Your task to perform on an android device: Open Chrome and go to settings Image 0: 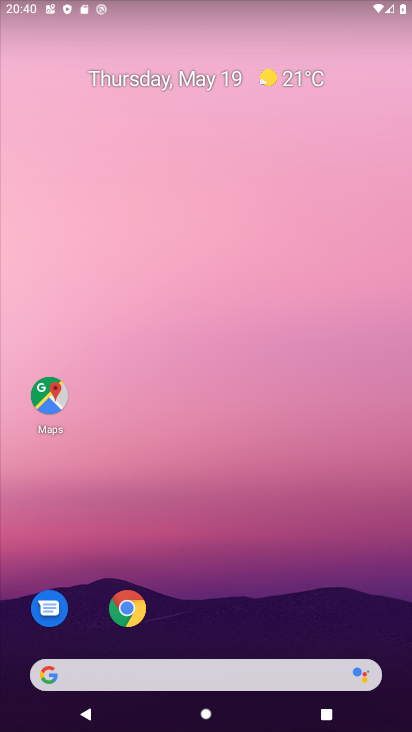
Step 0: click (133, 607)
Your task to perform on an android device: Open Chrome and go to settings Image 1: 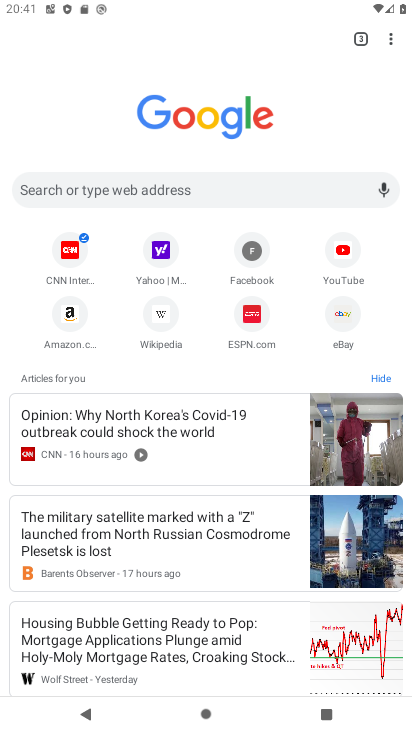
Step 1: click (391, 46)
Your task to perform on an android device: Open Chrome and go to settings Image 2: 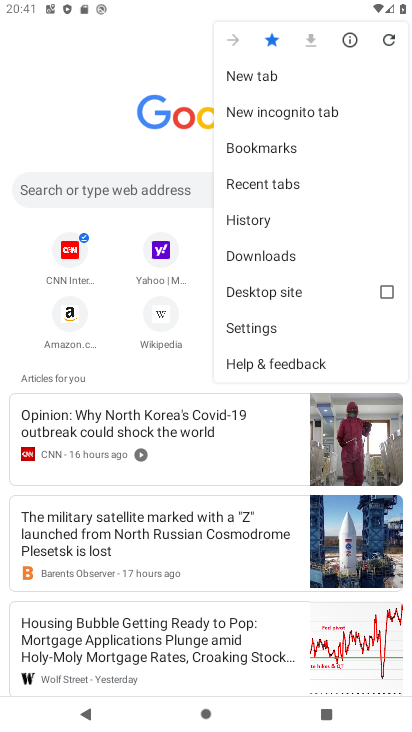
Step 2: click (259, 322)
Your task to perform on an android device: Open Chrome and go to settings Image 3: 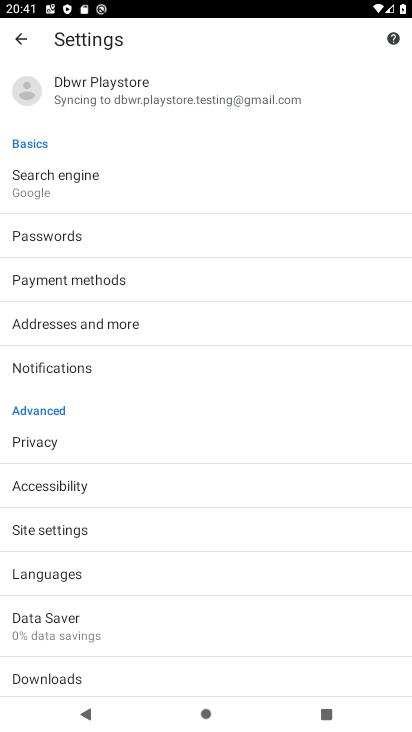
Step 3: task complete